Your task to perform on an android device: Go to Maps Image 0: 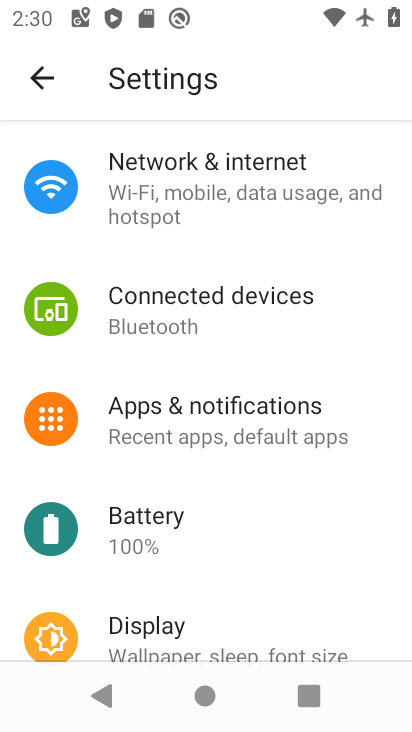
Step 0: press home button
Your task to perform on an android device: Go to Maps Image 1: 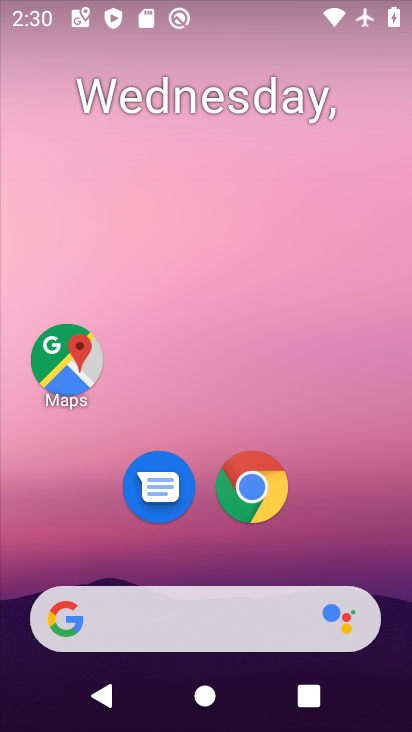
Step 1: drag from (313, 551) to (280, 169)
Your task to perform on an android device: Go to Maps Image 2: 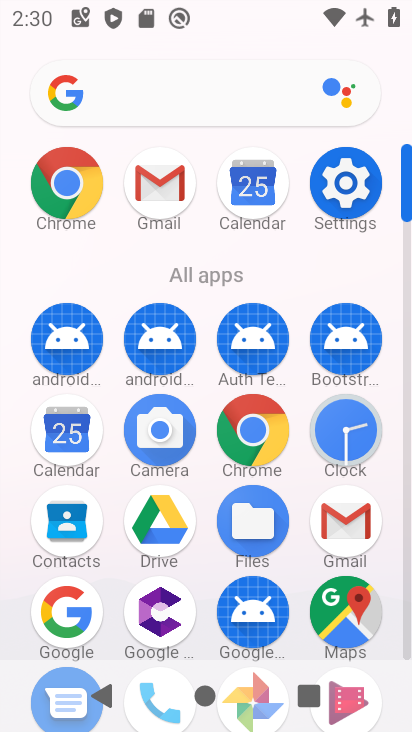
Step 2: click (353, 610)
Your task to perform on an android device: Go to Maps Image 3: 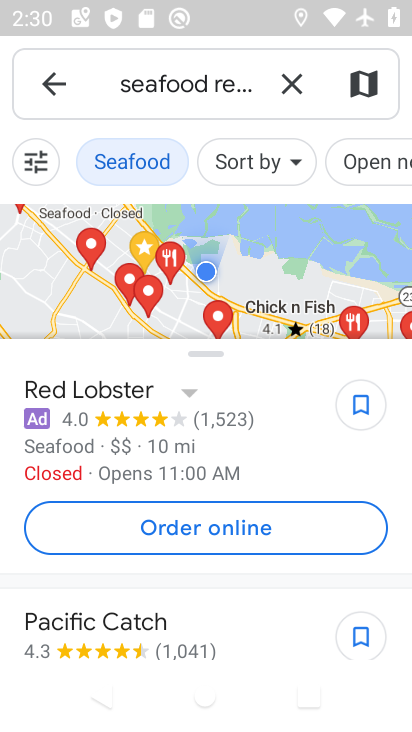
Step 3: task complete